Your task to perform on an android device: open device folders in google photos Image 0: 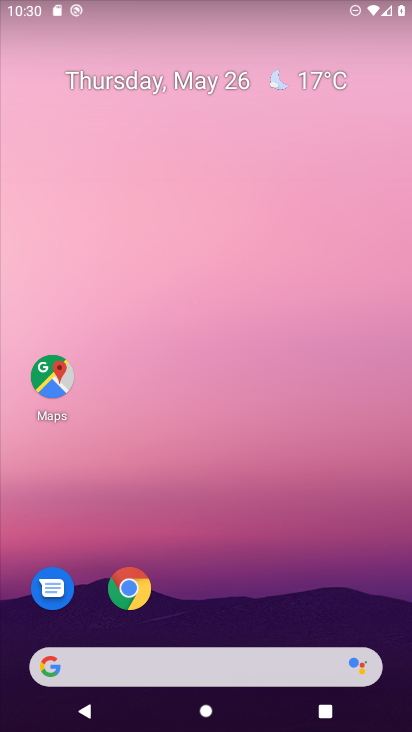
Step 0: drag from (338, 596) to (248, 49)
Your task to perform on an android device: open device folders in google photos Image 1: 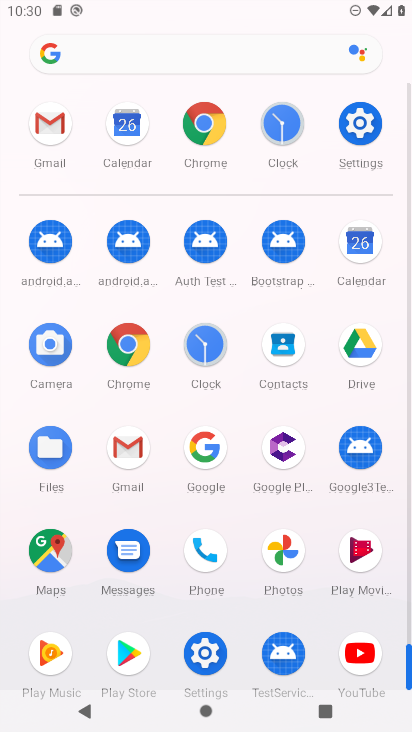
Step 1: click (285, 551)
Your task to perform on an android device: open device folders in google photos Image 2: 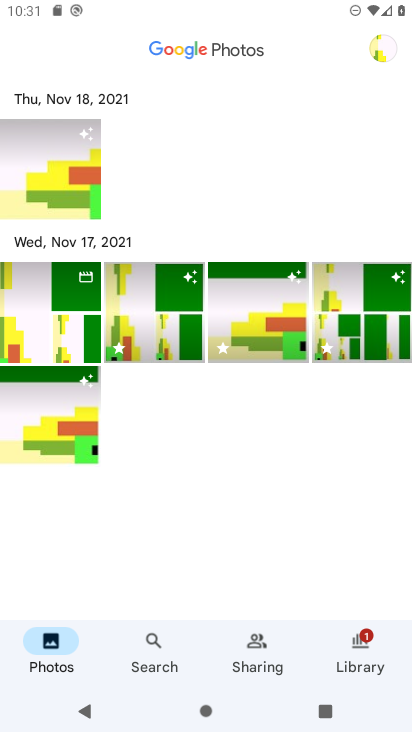
Step 2: task complete